Your task to perform on an android device: turn notification dots off Image 0: 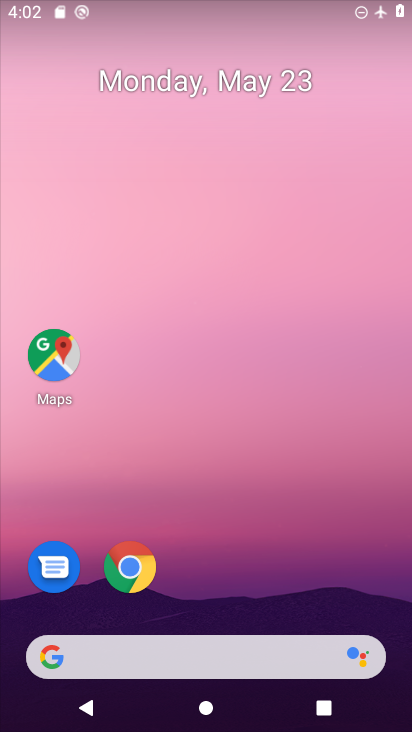
Step 0: drag from (384, 644) to (248, 46)
Your task to perform on an android device: turn notification dots off Image 1: 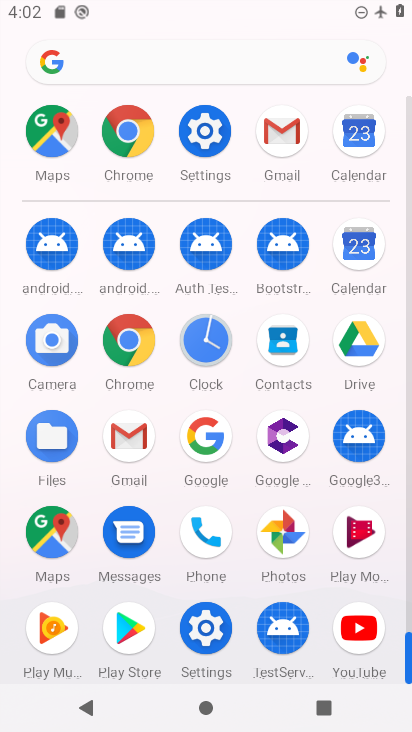
Step 1: click (199, 633)
Your task to perform on an android device: turn notification dots off Image 2: 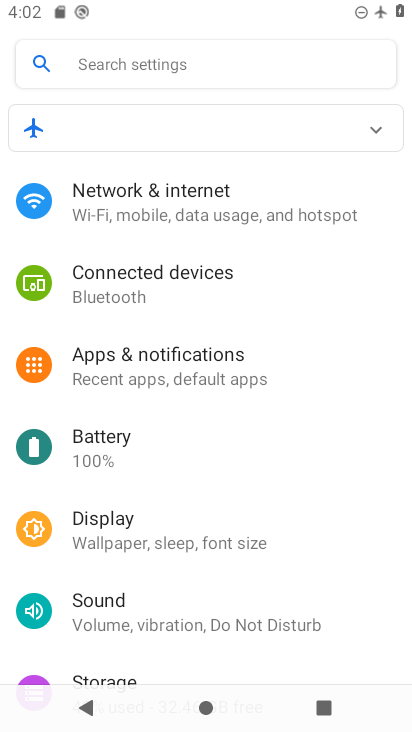
Step 2: click (164, 363)
Your task to perform on an android device: turn notification dots off Image 3: 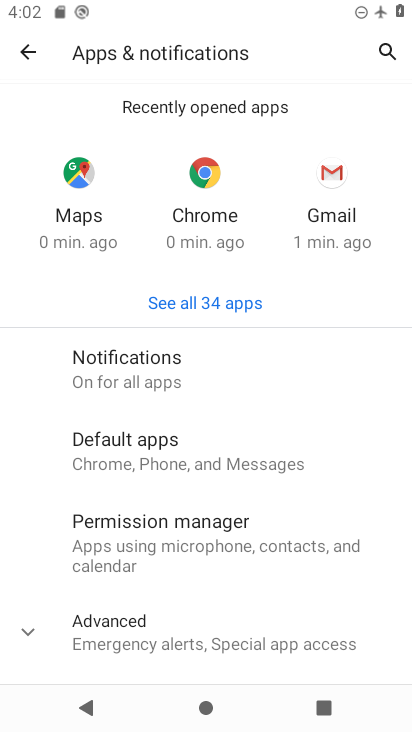
Step 3: click (123, 369)
Your task to perform on an android device: turn notification dots off Image 4: 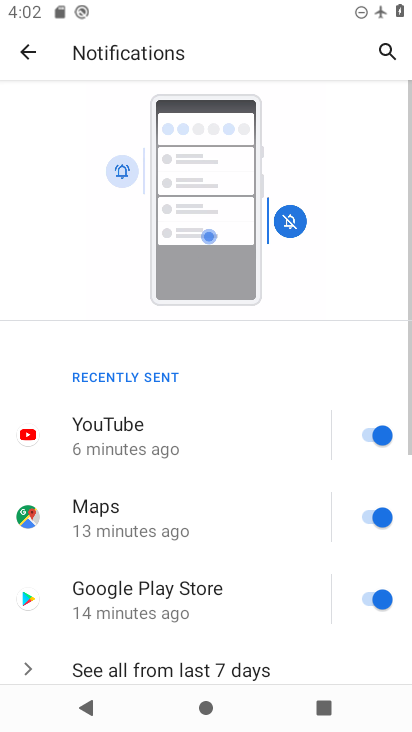
Step 4: drag from (236, 645) to (200, 126)
Your task to perform on an android device: turn notification dots off Image 5: 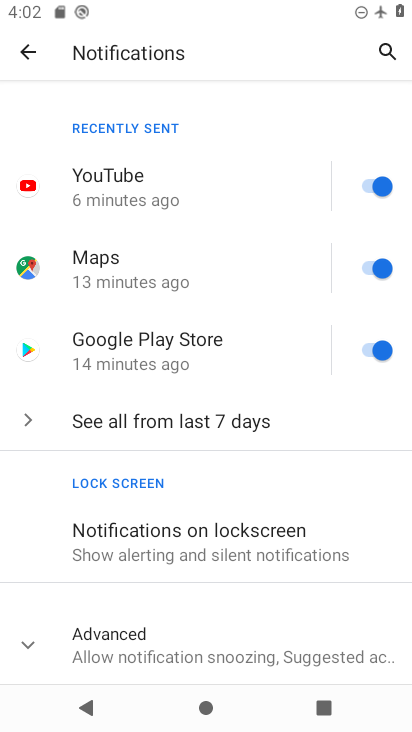
Step 5: click (107, 655)
Your task to perform on an android device: turn notification dots off Image 6: 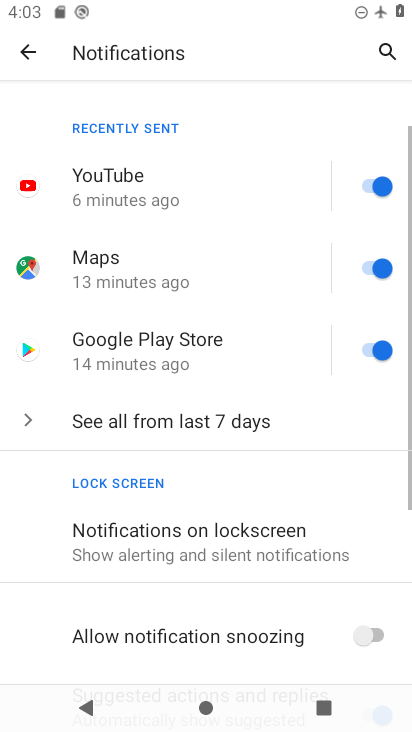
Step 6: task complete